Your task to perform on an android device: turn on the 12-hour format for clock Image 0: 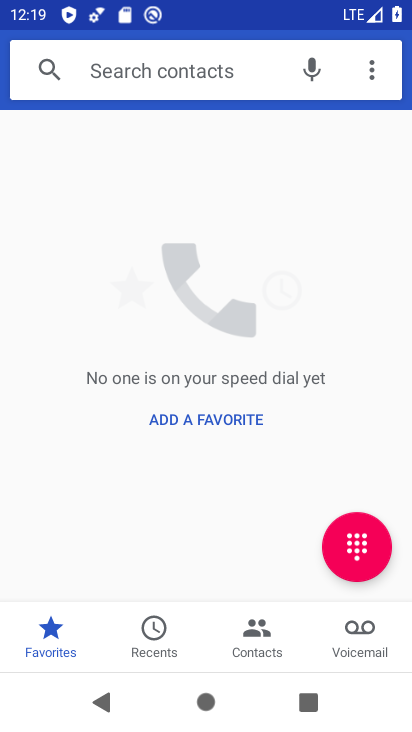
Step 0: press home button
Your task to perform on an android device: turn on the 12-hour format for clock Image 1: 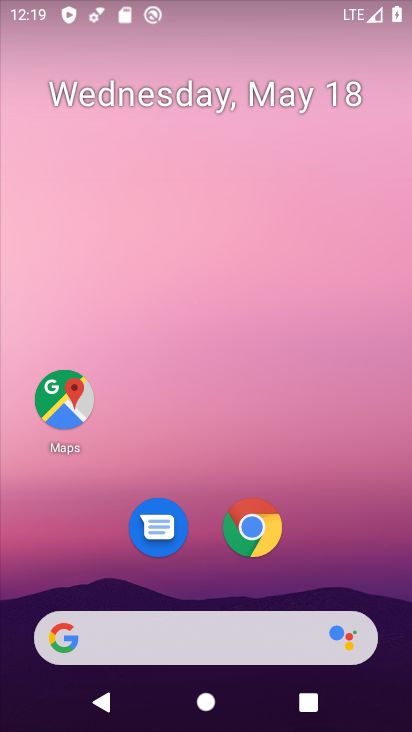
Step 1: drag from (331, 542) to (279, 126)
Your task to perform on an android device: turn on the 12-hour format for clock Image 2: 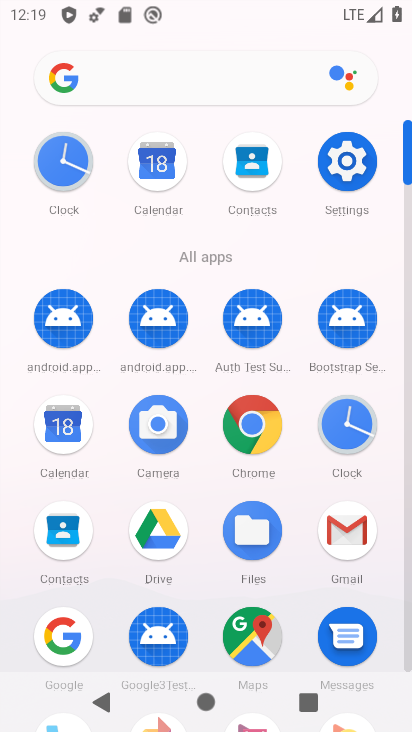
Step 2: click (346, 415)
Your task to perform on an android device: turn on the 12-hour format for clock Image 3: 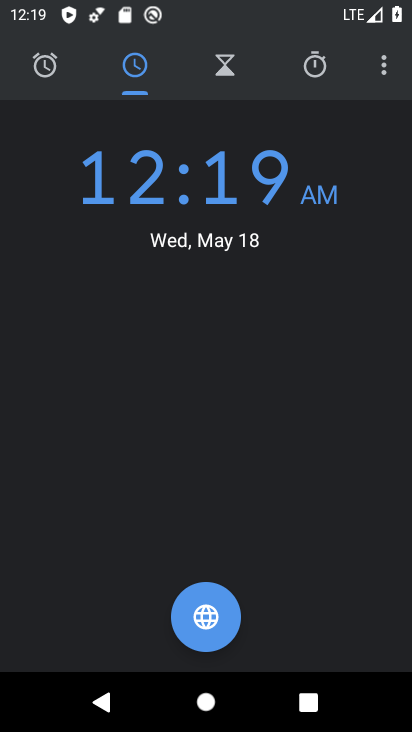
Step 3: click (382, 70)
Your task to perform on an android device: turn on the 12-hour format for clock Image 4: 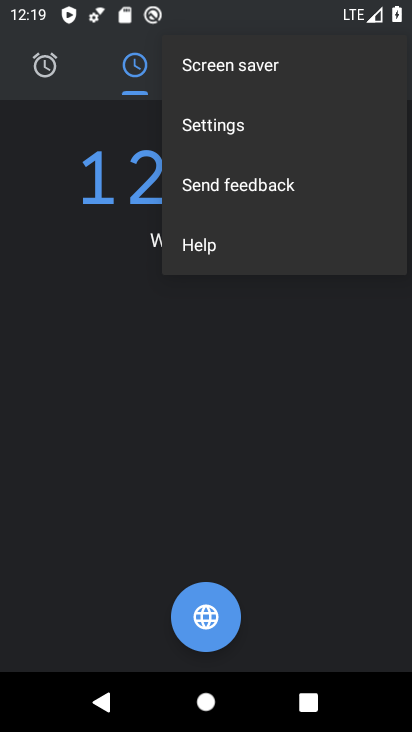
Step 4: click (237, 134)
Your task to perform on an android device: turn on the 12-hour format for clock Image 5: 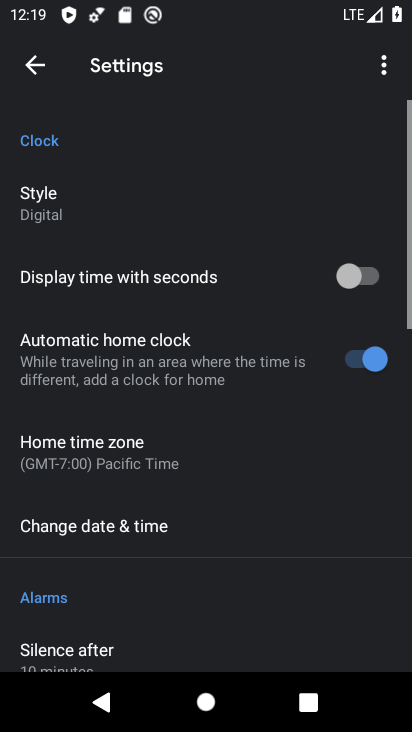
Step 5: click (188, 513)
Your task to perform on an android device: turn on the 12-hour format for clock Image 6: 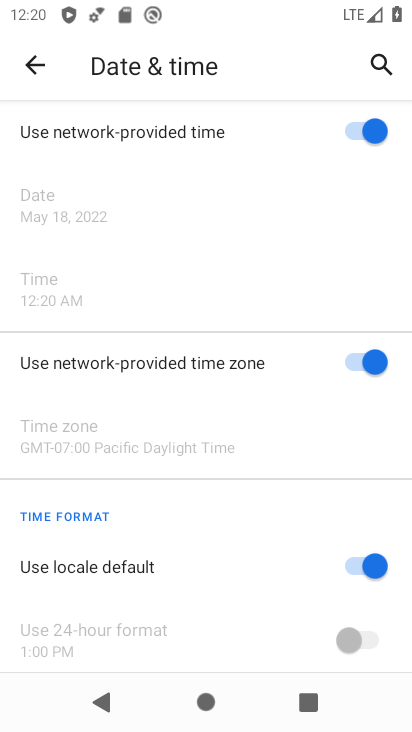
Step 6: task complete